Your task to perform on an android device: open app "AliExpress" Image 0: 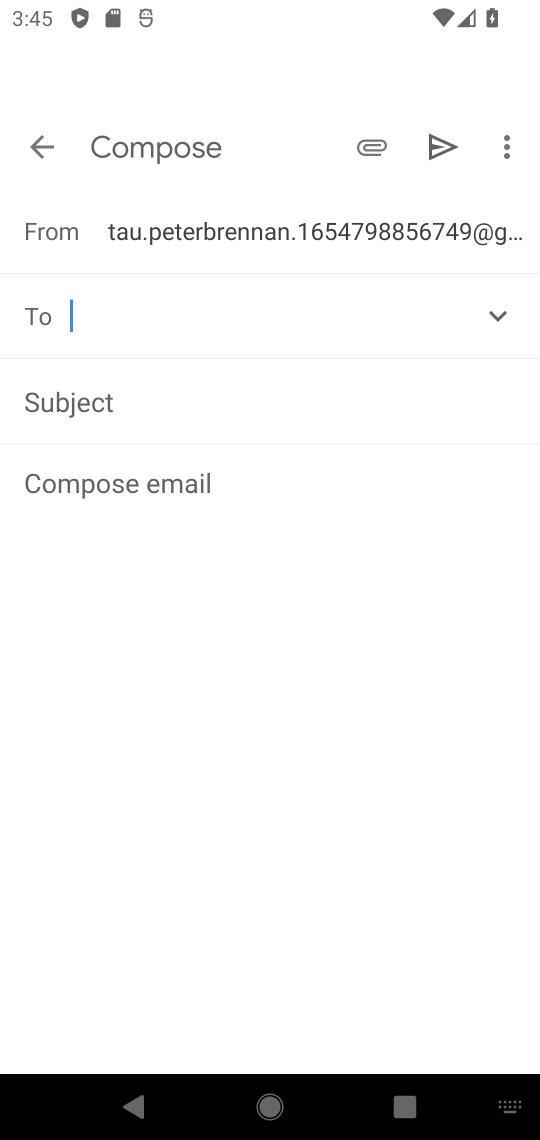
Step 0: press home button
Your task to perform on an android device: open app "AliExpress" Image 1: 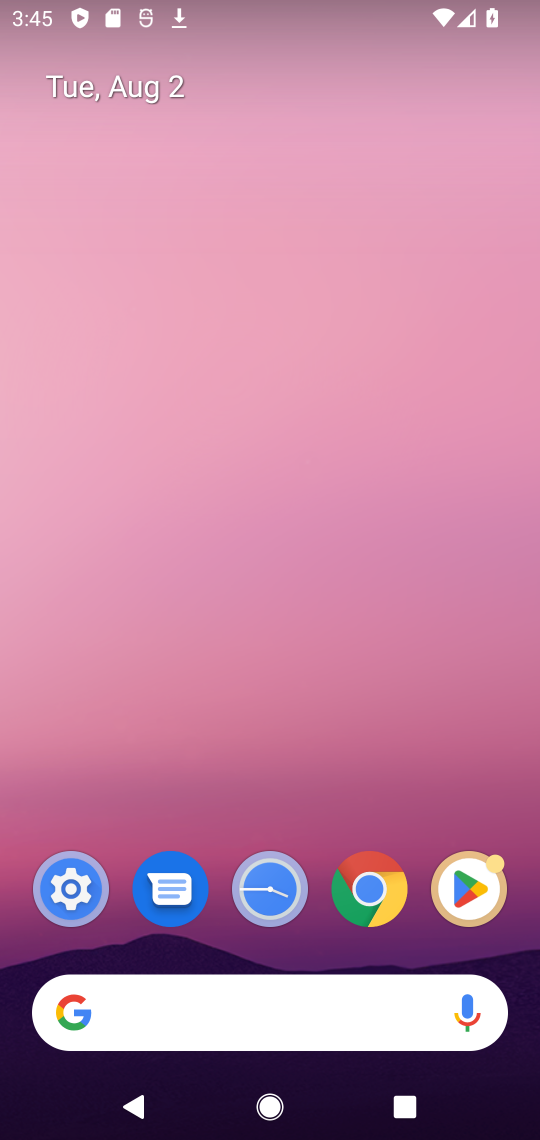
Step 1: drag from (387, 710) to (334, 29)
Your task to perform on an android device: open app "AliExpress" Image 2: 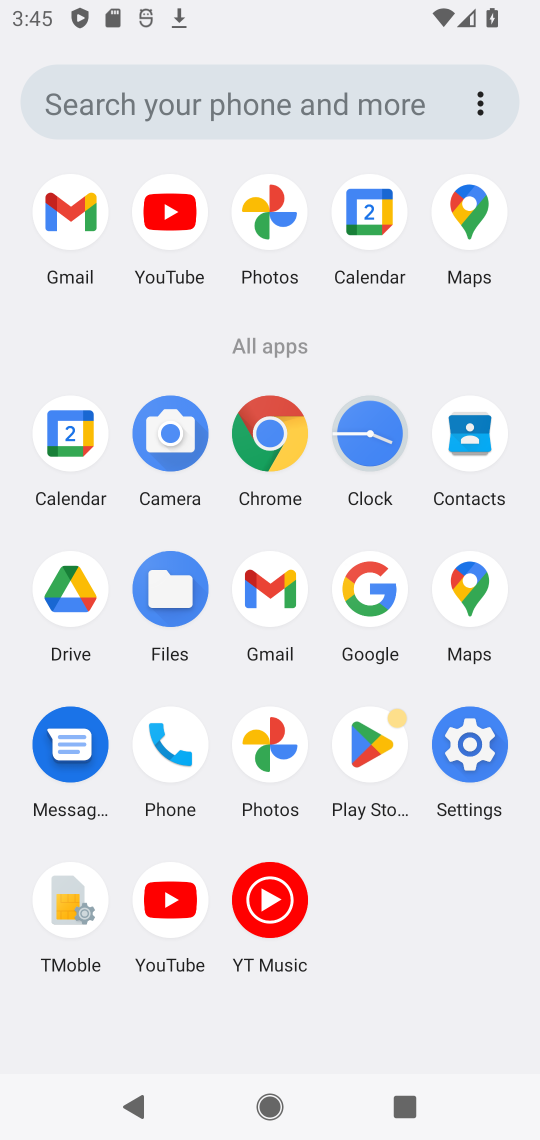
Step 2: click (377, 746)
Your task to perform on an android device: open app "AliExpress" Image 3: 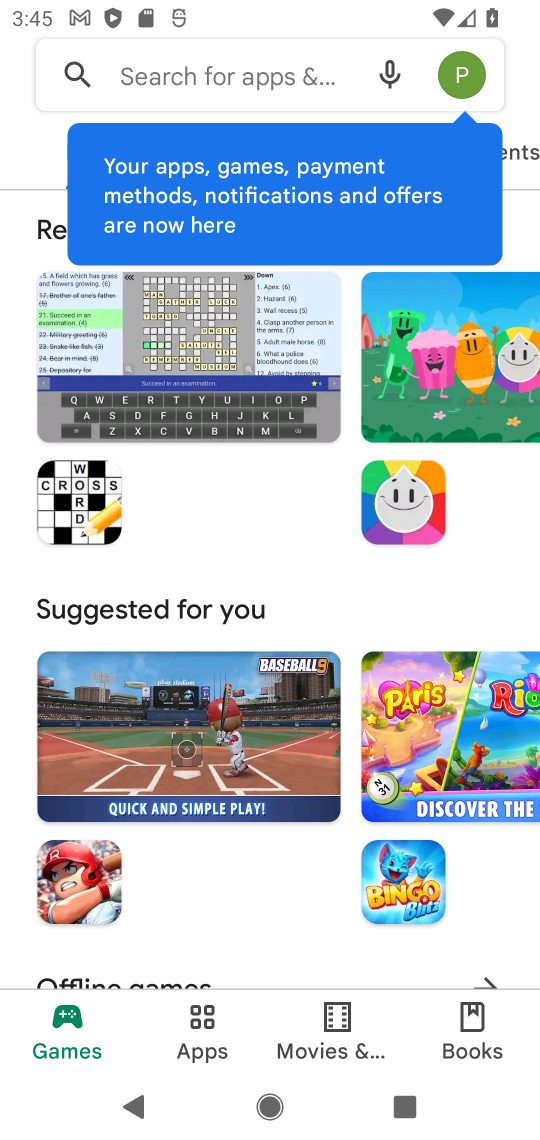
Step 3: click (290, 70)
Your task to perform on an android device: open app "AliExpress" Image 4: 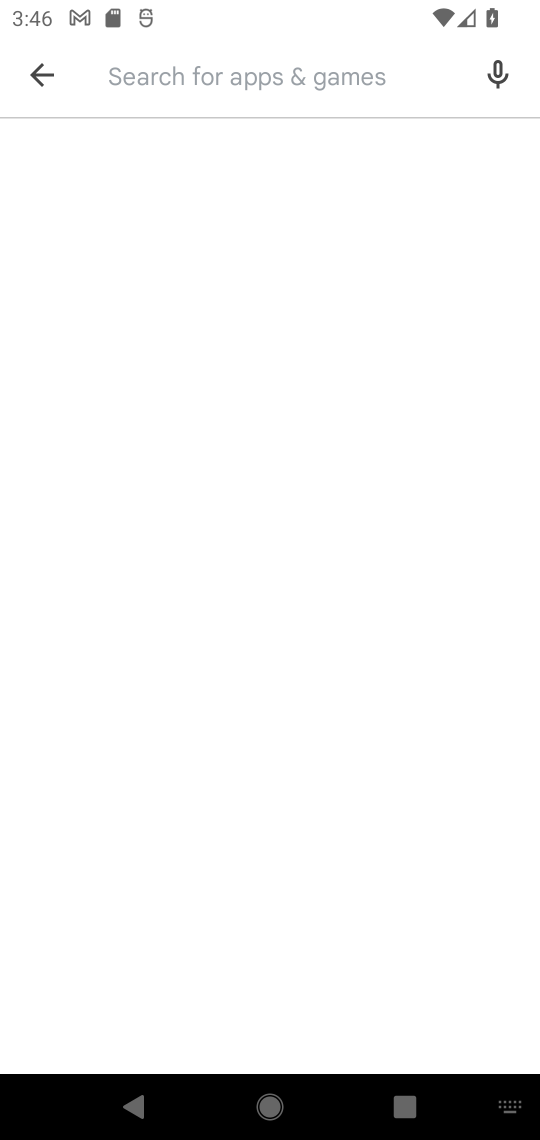
Step 4: type "aliexpress"
Your task to perform on an android device: open app "AliExpress" Image 5: 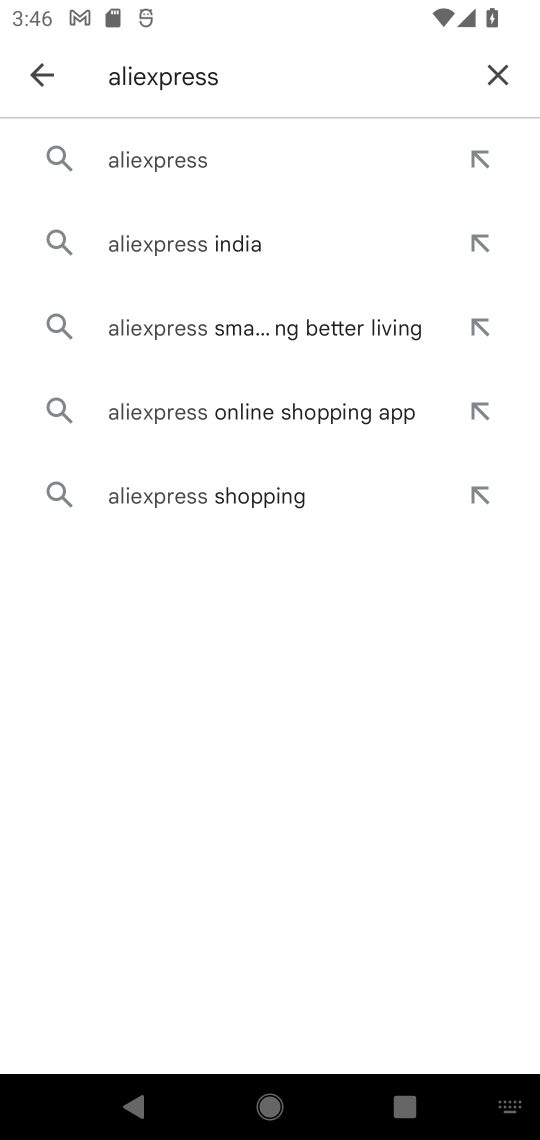
Step 5: click (193, 160)
Your task to perform on an android device: open app "AliExpress" Image 6: 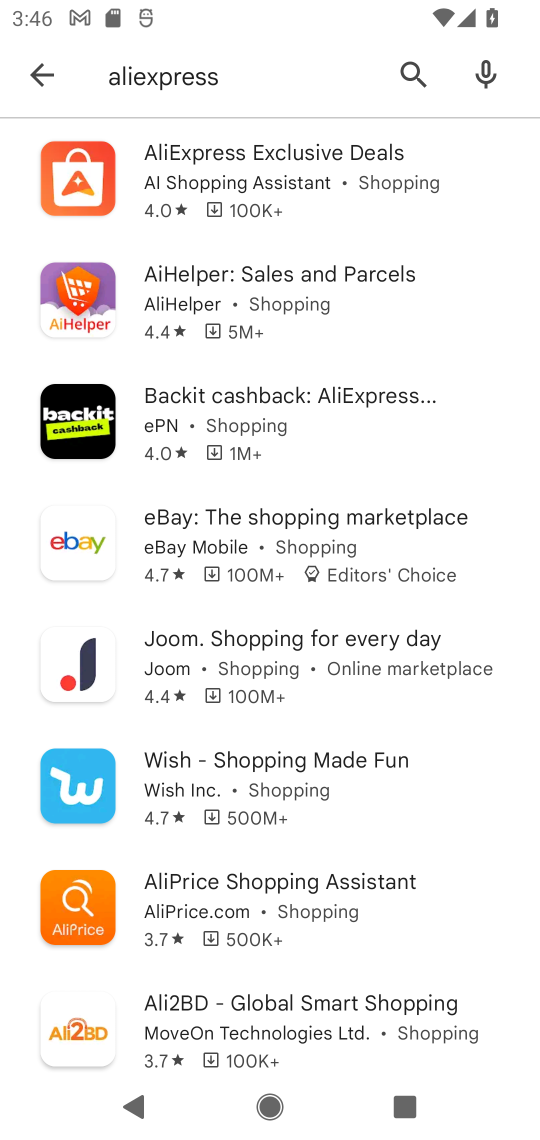
Step 6: task complete